Your task to perform on an android device: add a contact in the contacts app Image 0: 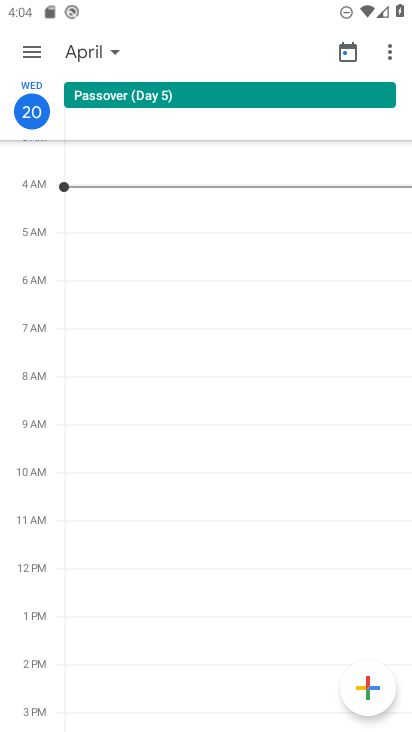
Step 0: press home button
Your task to perform on an android device: add a contact in the contacts app Image 1: 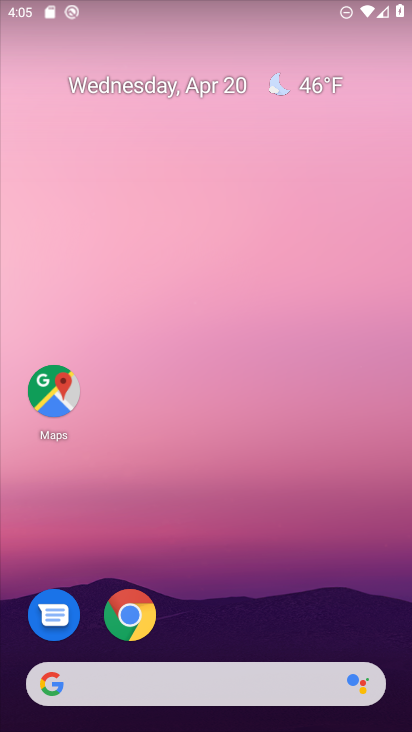
Step 1: drag from (208, 529) to (307, 7)
Your task to perform on an android device: add a contact in the contacts app Image 2: 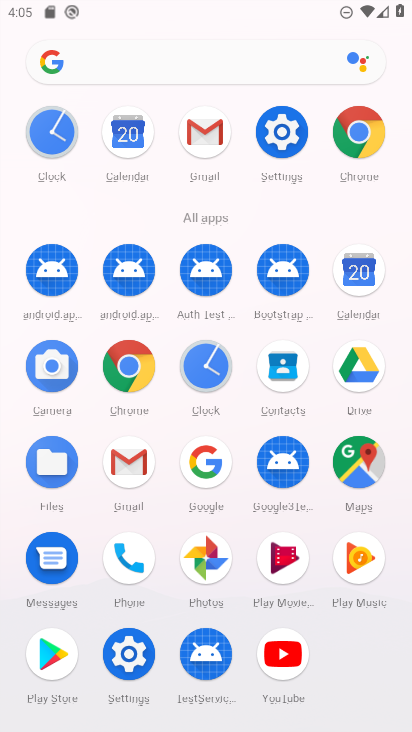
Step 2: click (293, 380)
Your task to perform on an android device: add a contact in the contacts app Image 3: 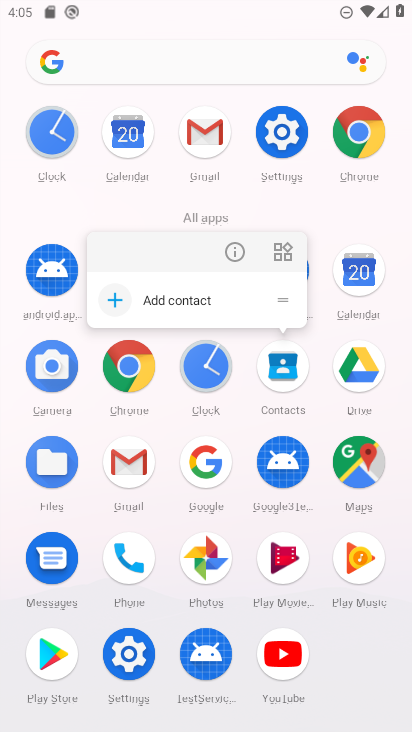
Step 3: click (290, 376)
Your task to perform on an android device: add a contact in the contacts app Image 4: 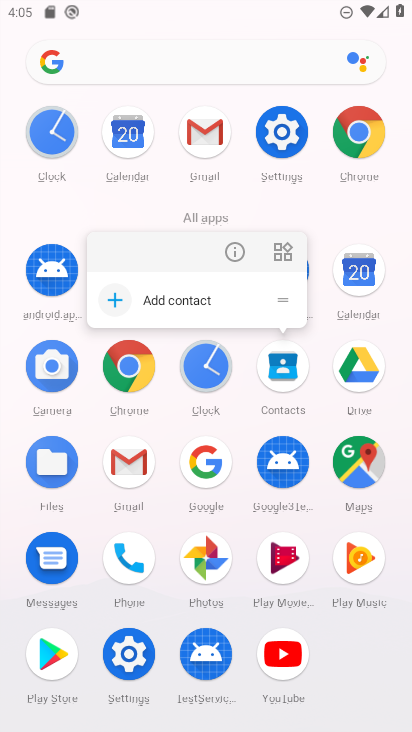
Step 4: click (284, 375)
Your task to perform on an android device: add a contact in the contacts app Image 5: 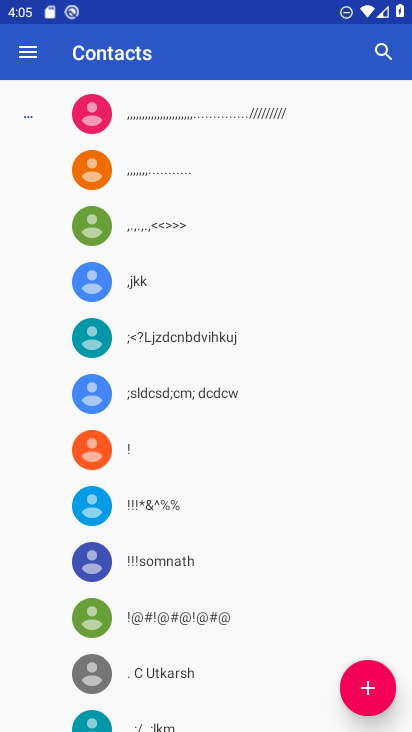
Step 5: click (376, 677)
Your task to perform on an android device: add a contact in the contacts app Image 6: 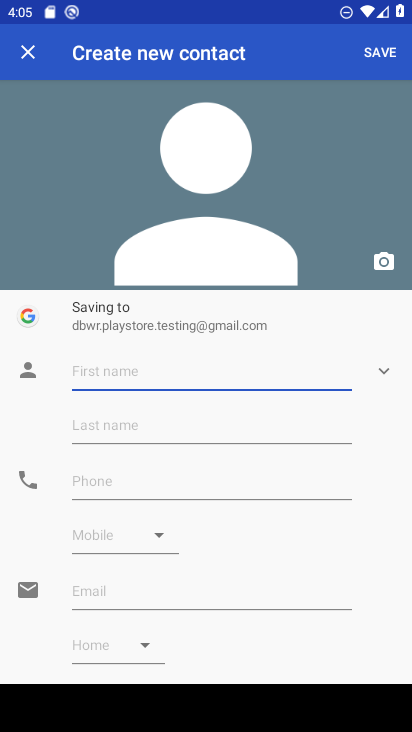
Step 6: click (147, 356)
Your task to perform on an android device: add a contact in the contacts app Image 7: 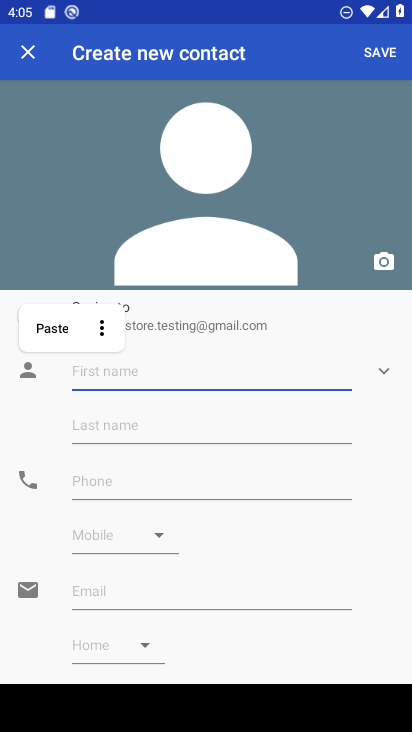
Step 7: type "seema"
Your task to perform on an android device: add a contact in the contacts app Image 8: 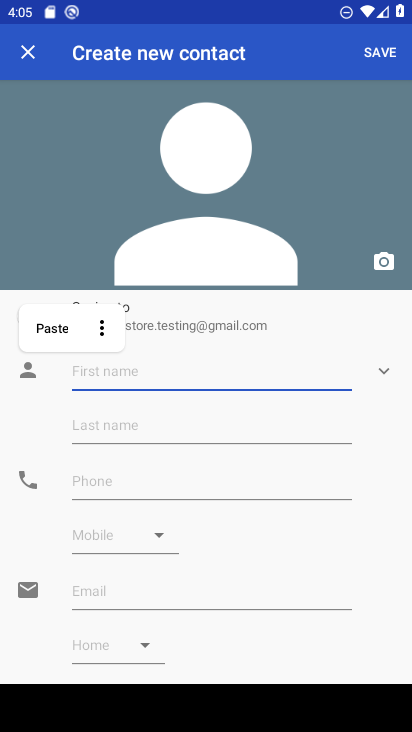
Step 8: click (118, 469)
Your task to perform on an android device: add a contact in the contacts app Image 9: 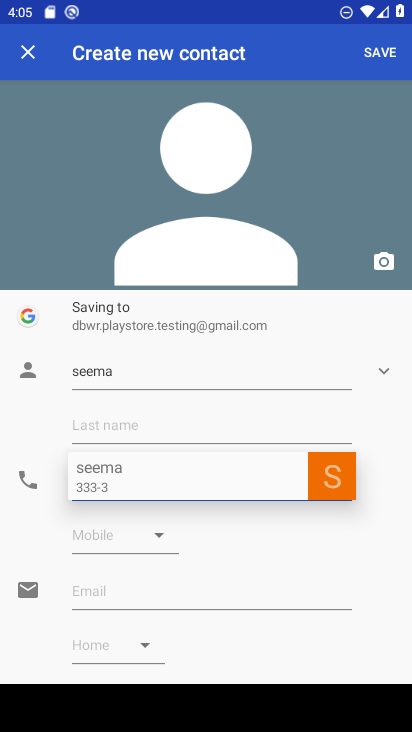
Step 9: type "76567876"
Your task to perform on an android device: add a contact in the contacts app Image 10: 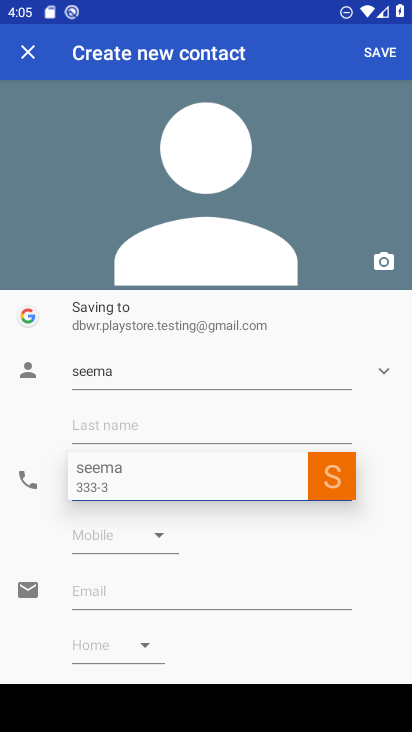
Step 10: click (259, 567)
Your task to perform on an android device: add a contact in the contacts app Image 11: 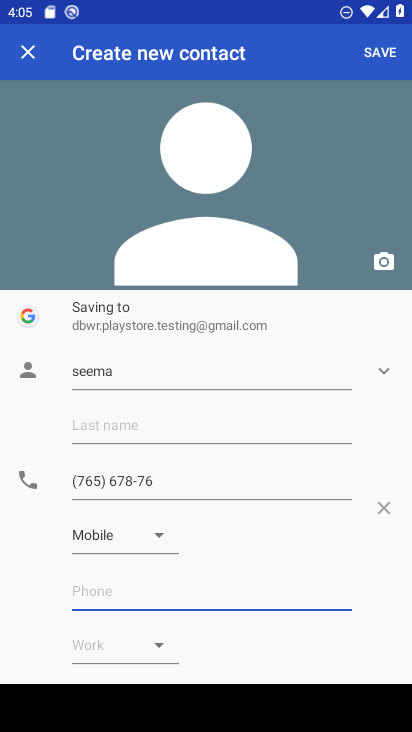
Step 11: click (384, 46)
Your task to perform on an android device: add a contact in the contacts app Image 12: 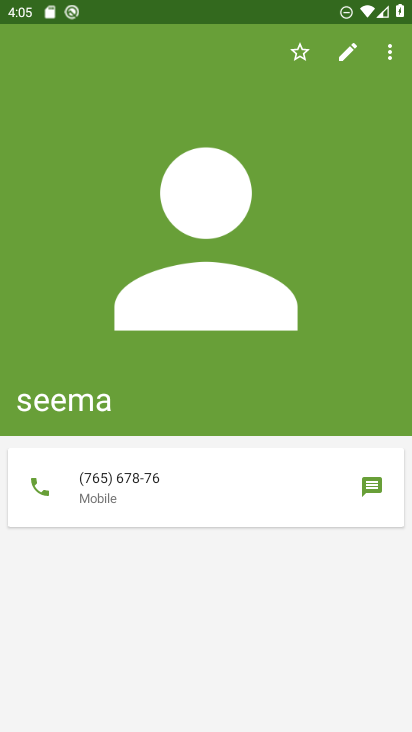
Step 12: task complete